Your task to perform on an android device: Open the map Image 0: 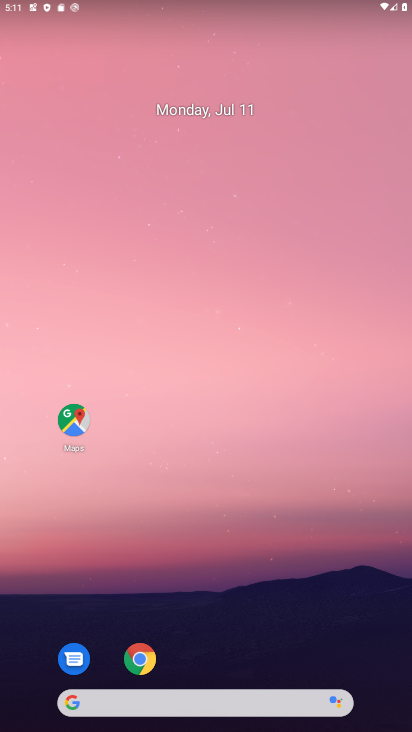
Step 0: click (70, 420)
Your task to perform on an android device: Open the map Image 1: 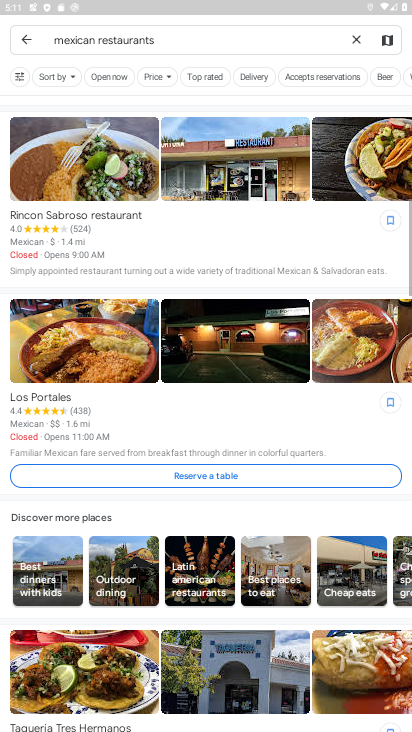
Step 1: click (355, 40)
Your task to perform on an android device: Open the map Image 2: 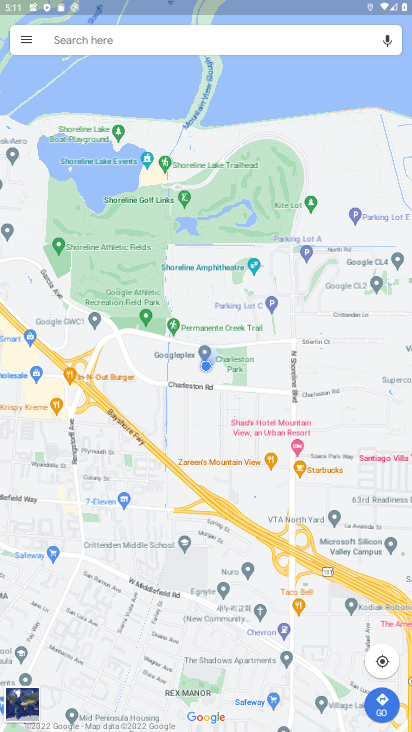
Step 2: task complete